Your task to perform on an android device: Turn on the flashlight Image 0: 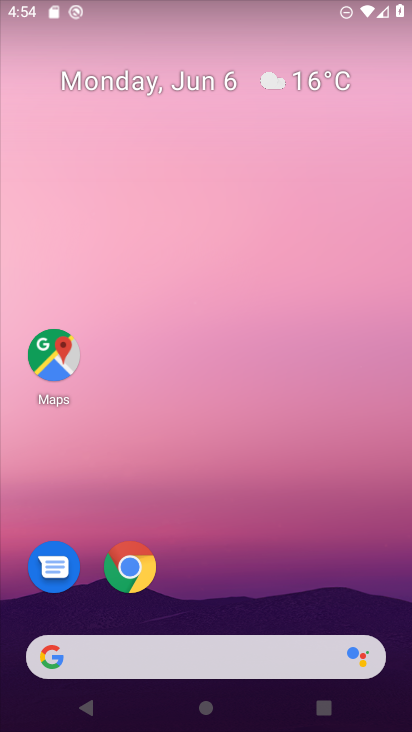
Step 0: drag from (292, 652) to (198, 237)
Your task to perform on an android device: Turn on the flashlight Image 1: 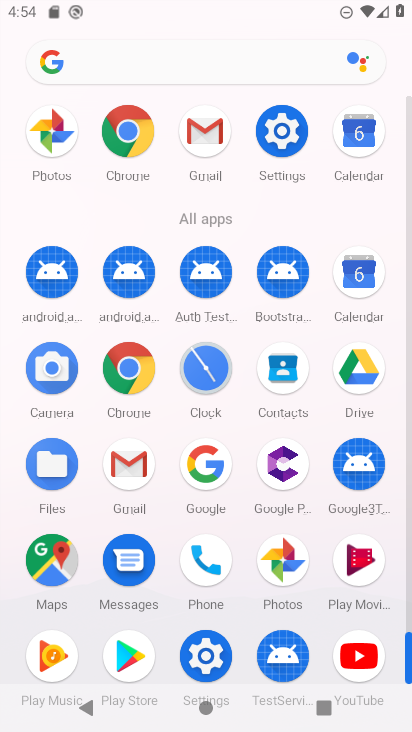
Step 1: task complete